Your task to perform on an android device: Show me my notifications Image 0: 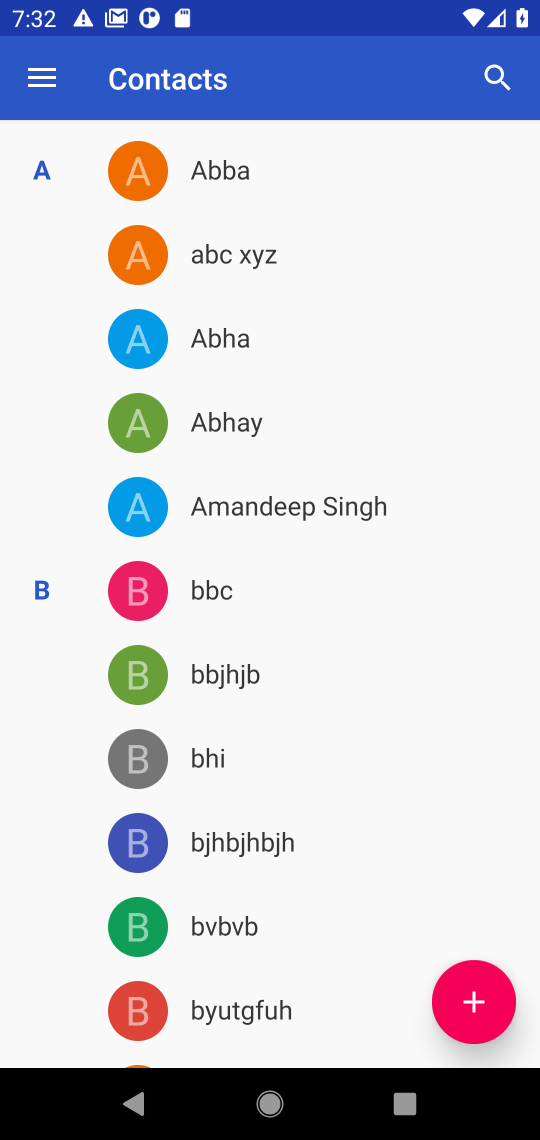
Step 0: press back button
Your task to perform on an android device: Show me my notifications Image 1: 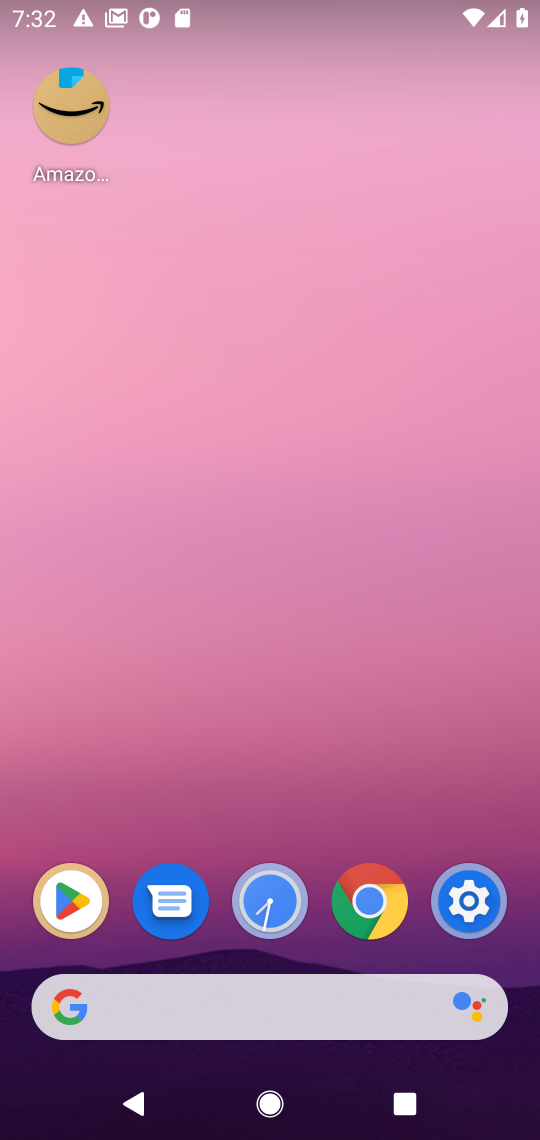
Step 1: drag from (263, 180) to (277, 606)
Your task to perform on an android device: Show me my notifications Image 2: 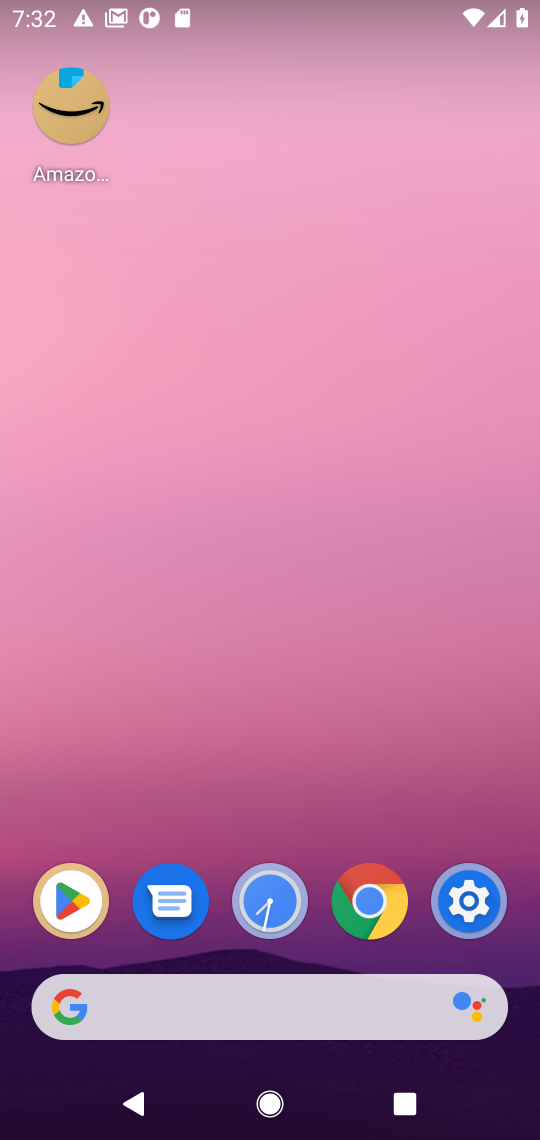
Step 2: drag from (219, 19) to (219, 696)
Your task to perform on an android device: Show me my notifications Image 3: 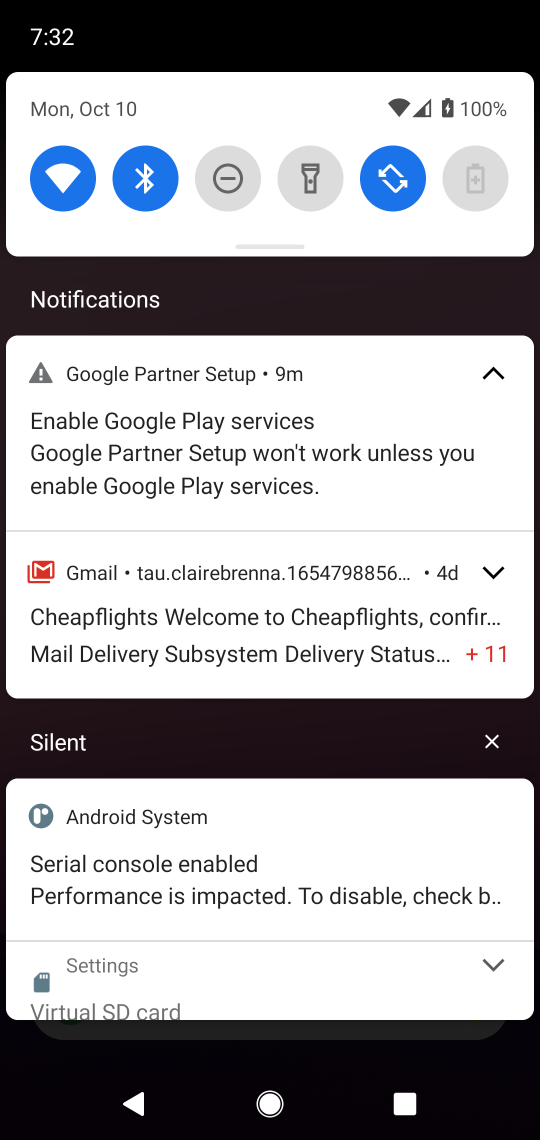
Step 3: drag from (327, 825) to (297, 625)
Your task to perform on an android device: Show me my notifications Image 4: 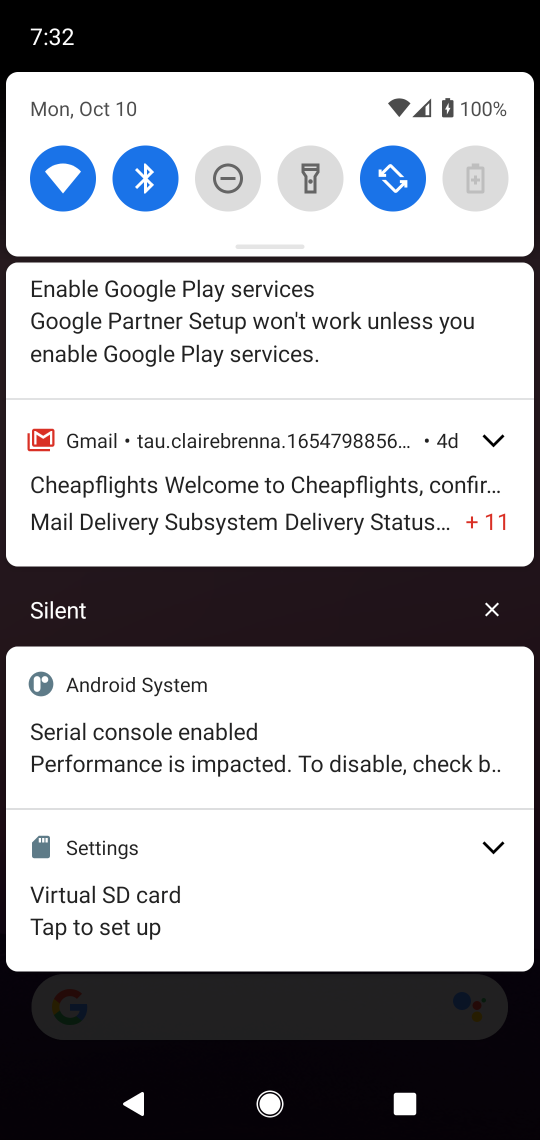
Step 4: drag from (223, 571) to (217, 785)
Your task to perform on an android device: Show me my notifications Image 5: 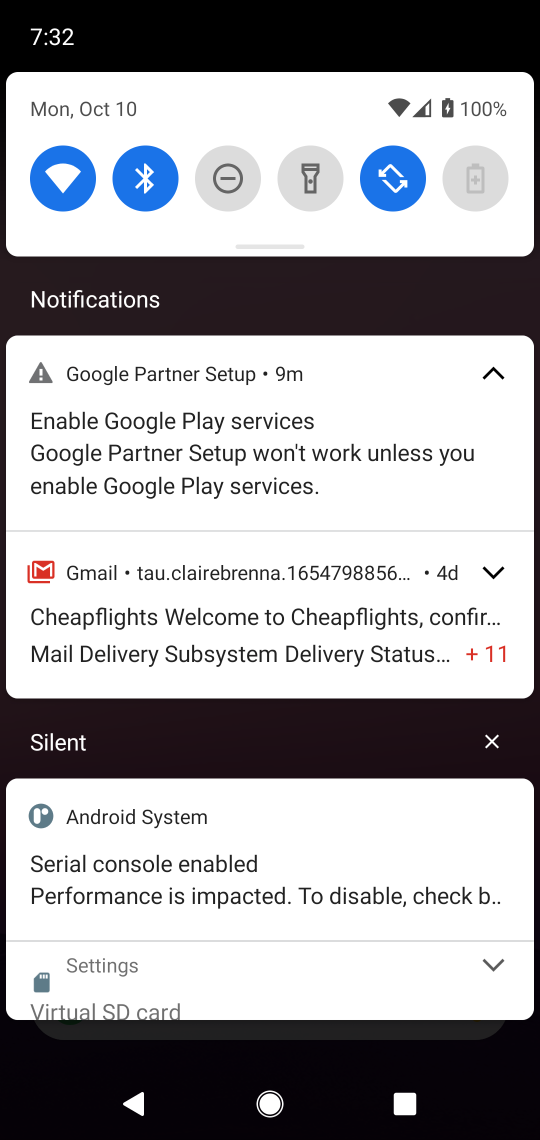
Step 5: click (89, 311)
Your task to perform on an android device: Show me my notifications Image 6: 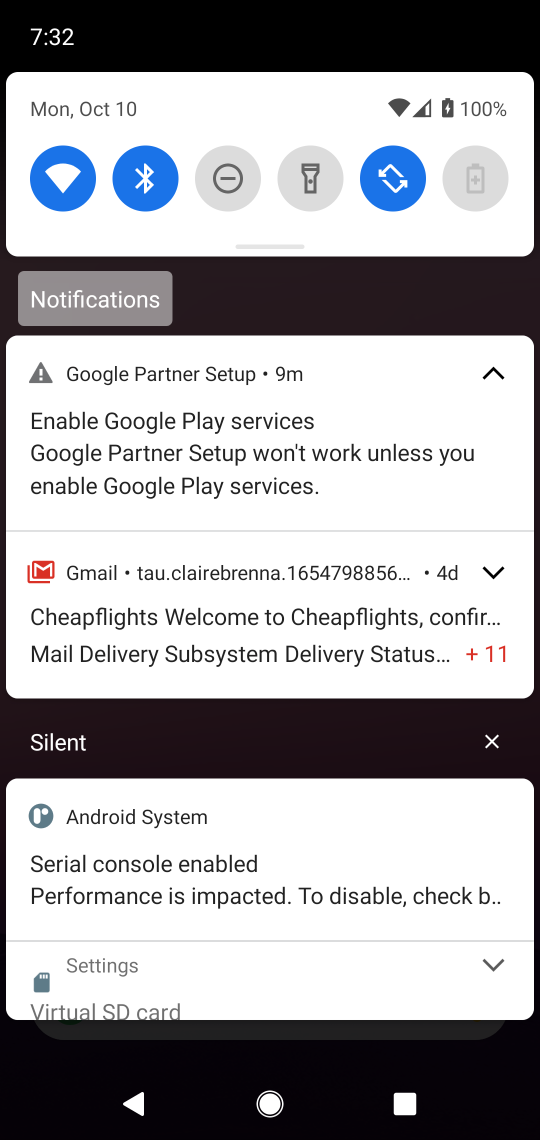
Step 6: click (99, 304)
Your task to perform on an android device: Show me my notifications Image 7: 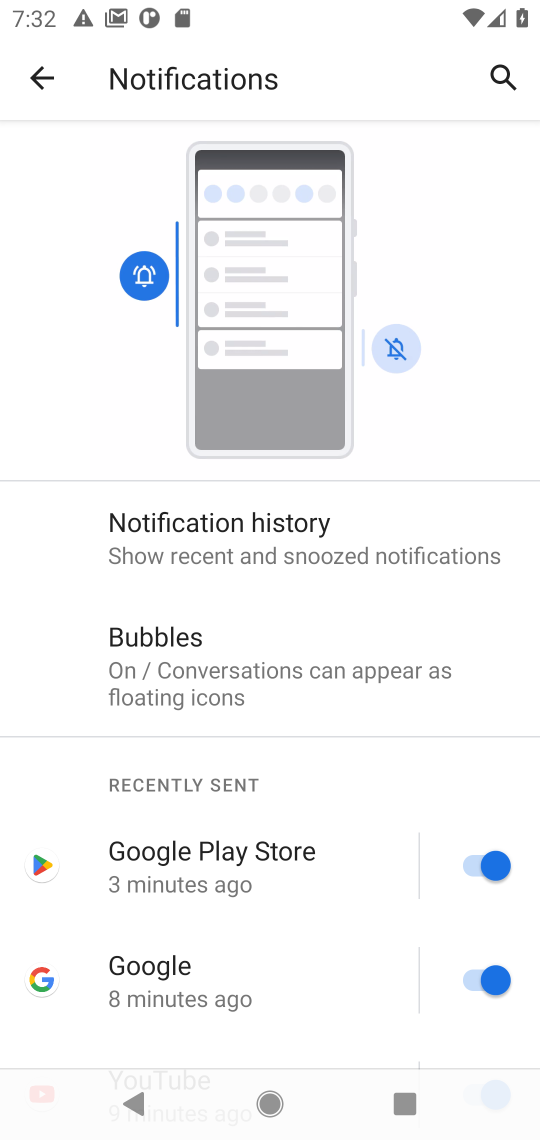
Step 7: drag from (91, 780) to (80, 355)
Your task to perform on an android device: Show me my notifications Image 8: 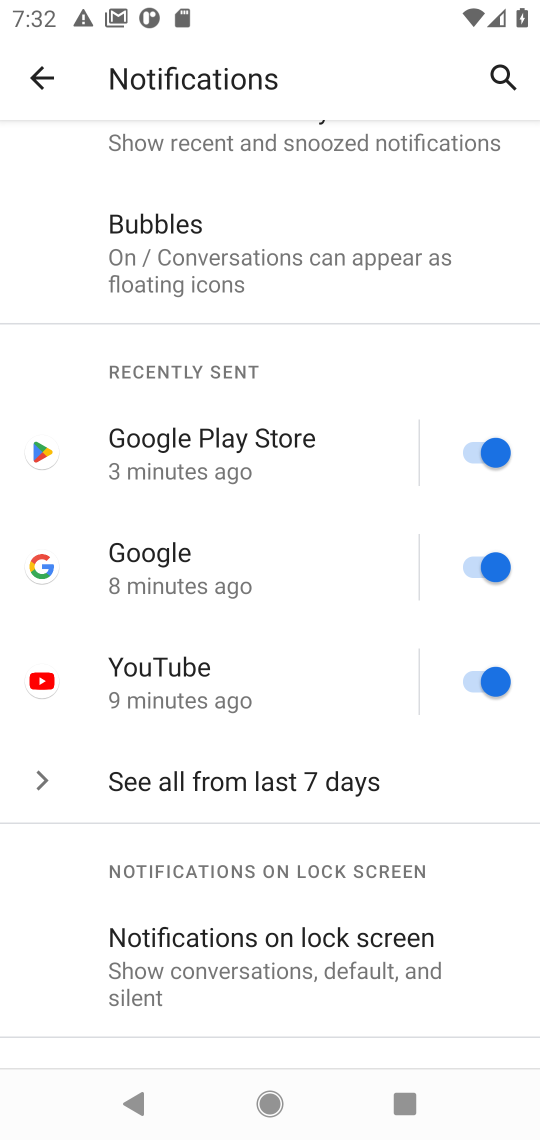
Step 8: drag from (82, 919) to (71, 683)
Your task to perform on an android device: Show me my notifications Image 9: 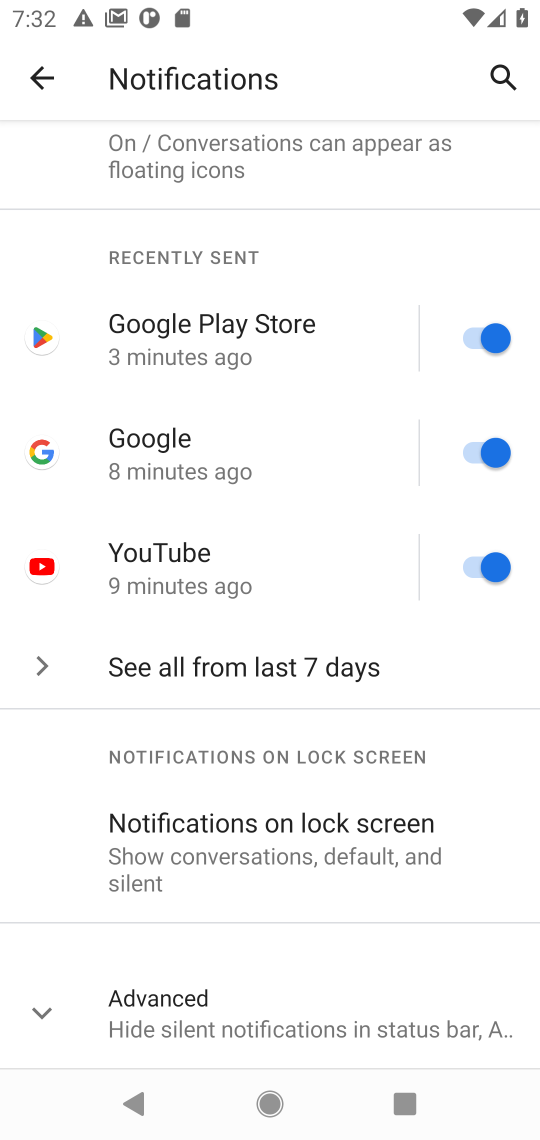
Step 9: drag from (75, 950) to (63, 685)
Your task to perform on an android device: Show me my notifications Image 10: 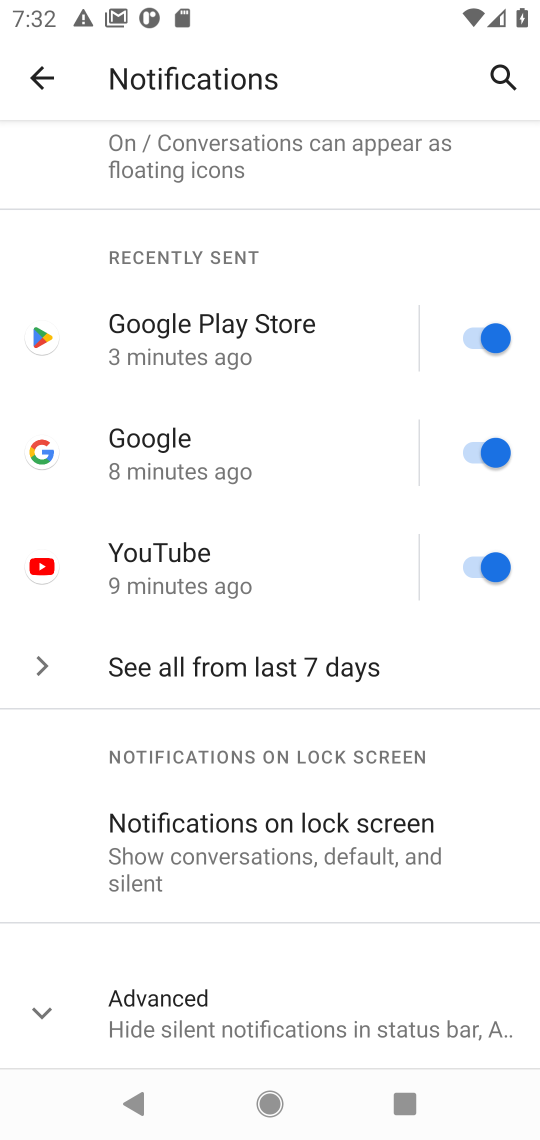
Step 10: click (29, 656)
Your task to perform on an android device: Show me my notifications Image 11: 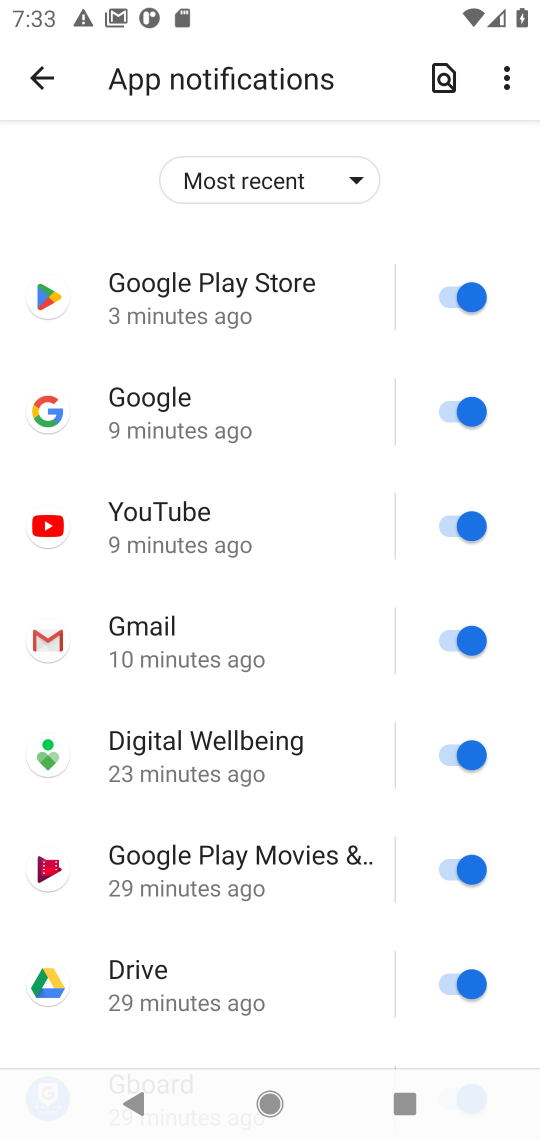
Step 11: drag from (362, 652) to (352, 364)
Your task to perform on an android device: Show me my notifications Image 12: 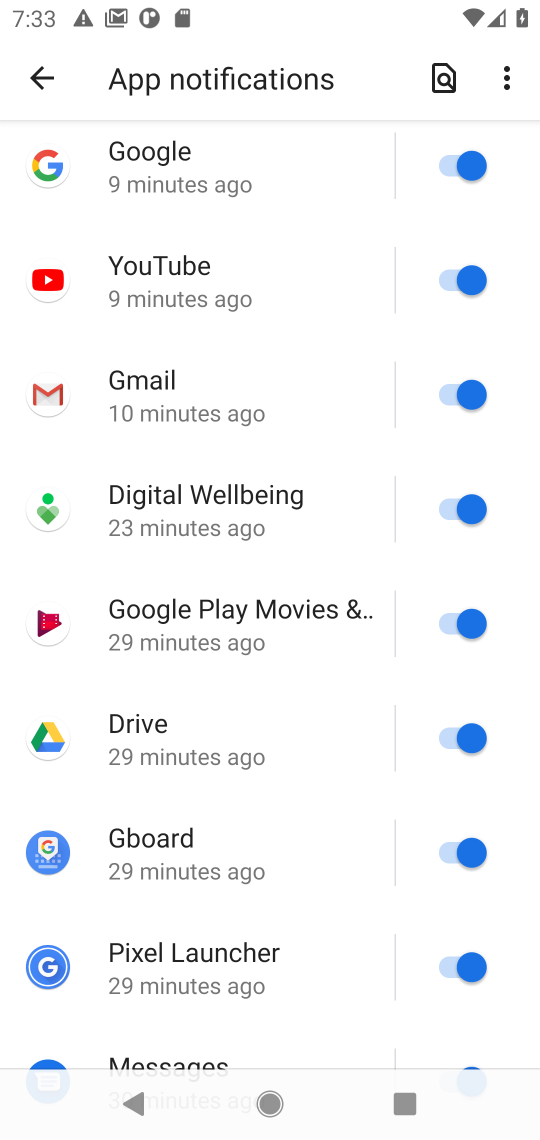
Step 12: drag from (352, 923) to (318, 393)
Your task to perform on an android device: Show me my notifications Image 13: 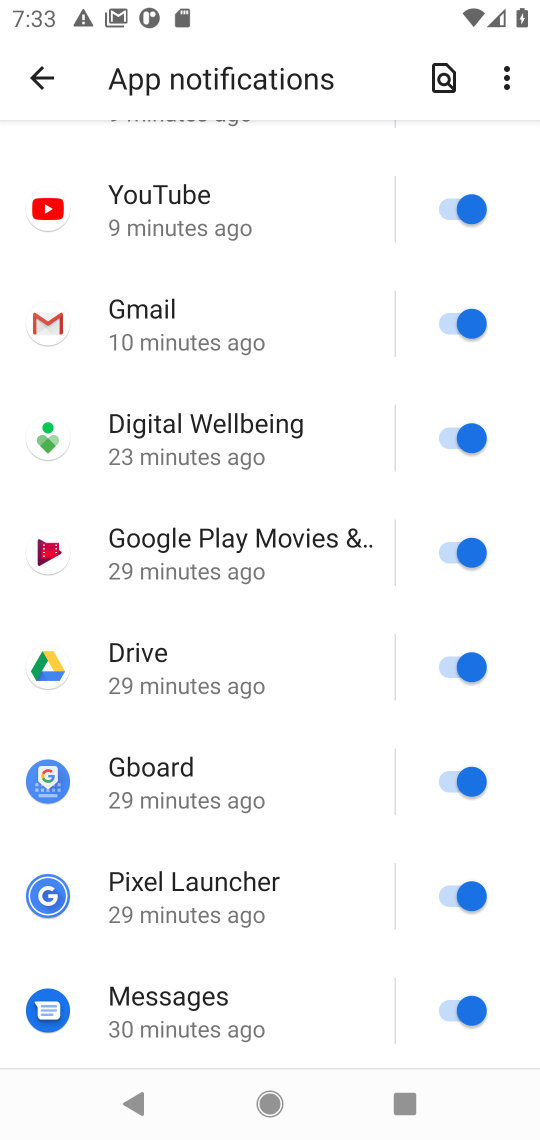
Step 13: click (40, 87)
Your task to perform on an android device: Show me my notifications Image 14: 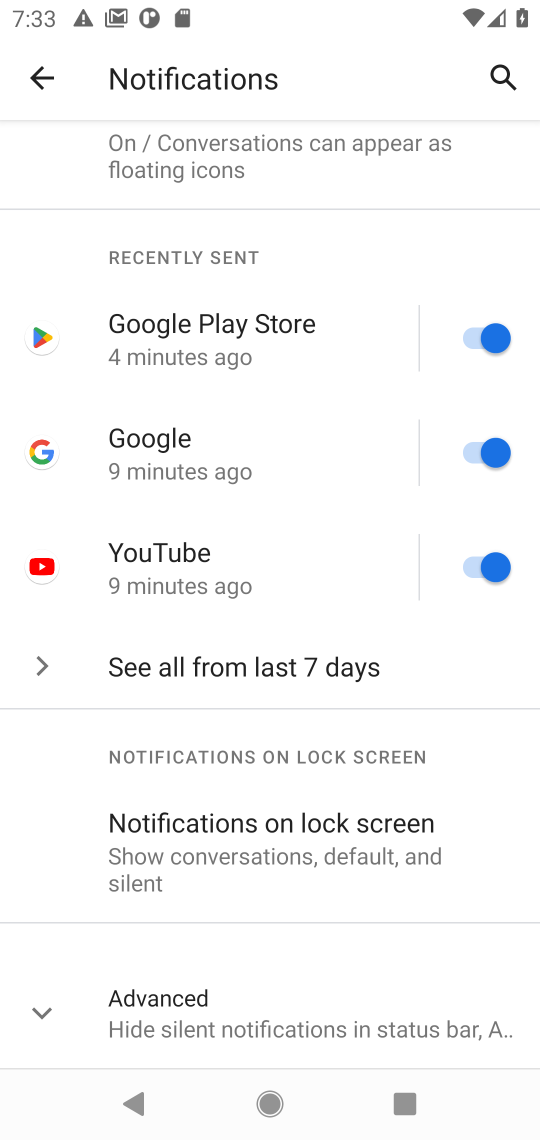
Step 14: task complete